Your task to perform on an android device: Show me popular games on the Play Store Image 0: 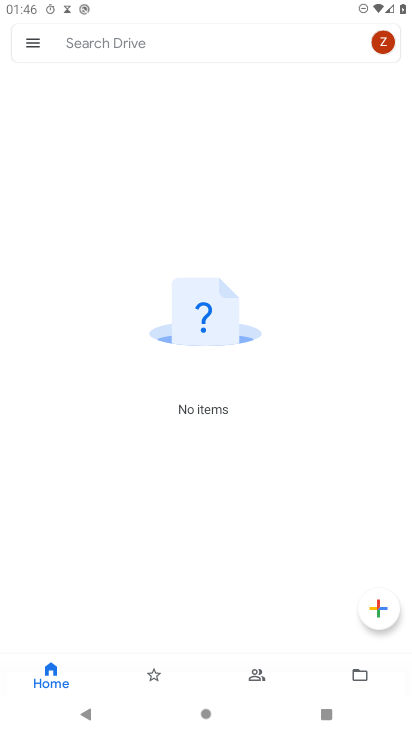
Step 0: press home button
Your task to perform on an android device: Show me popular games on the Play Store Image 1: 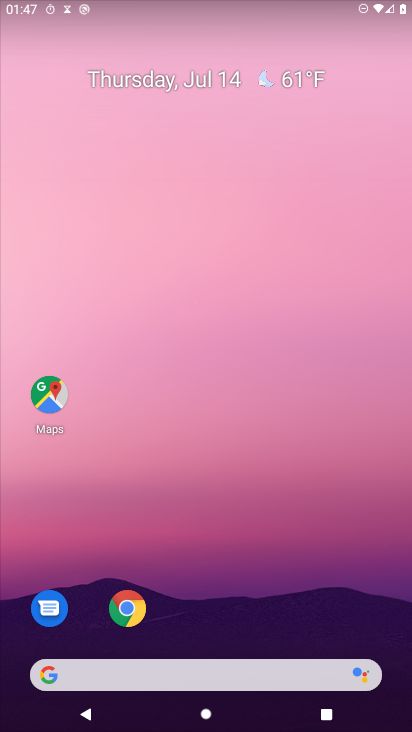
Step 1: drag from (241, 614) to (250, 82)
Your task to perform on an android device: Show me popular games on the Play Store Image 2: 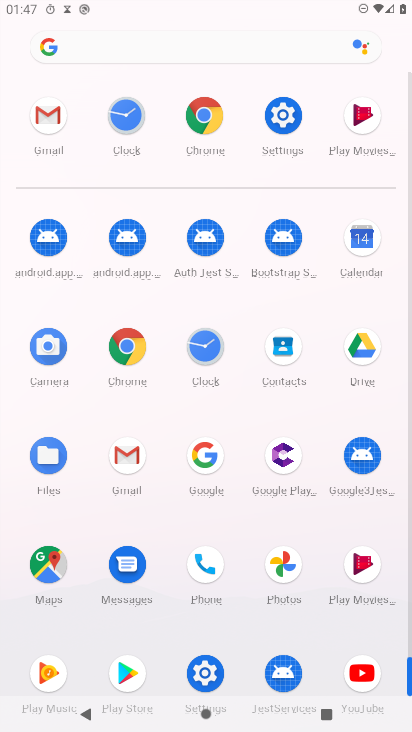
Step 2: click (128, 675)
Your task to perform on an android device: Show me popular games on the Play Store Image 3: 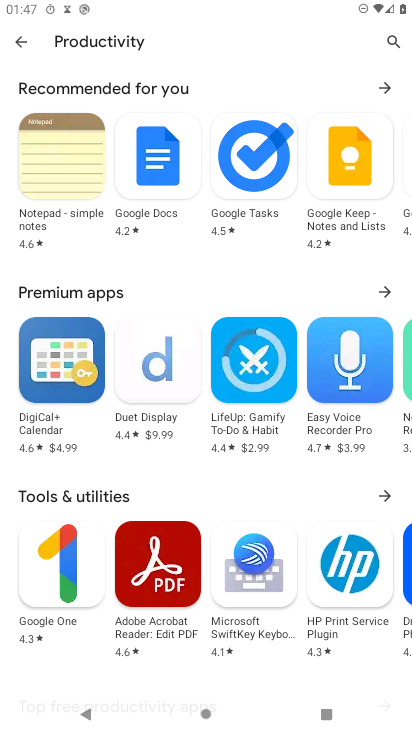
Step 3: click (19, 42)
Your task to perform on an android device: Show me popular games on the Play Store Image 4: 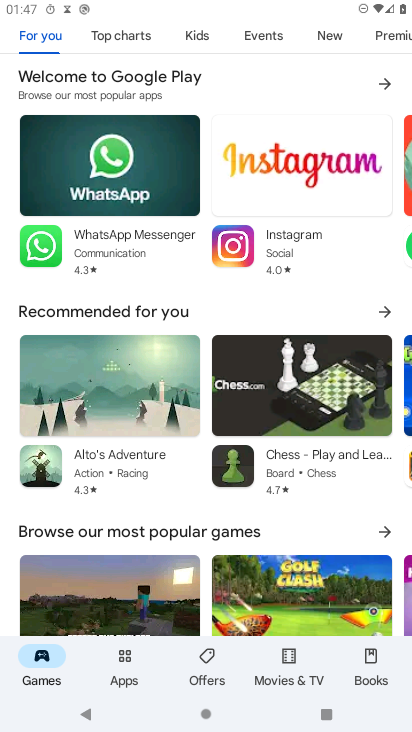
Step 4: click (145, 529)
Your task to perform on an android device: Show me popular games on the Play Store Image 5: 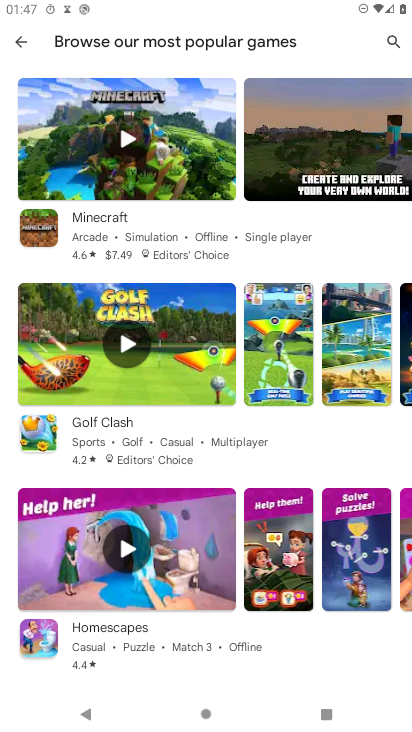
Step 5: task complete